Your task to perform on an android device: Search for seafood restaurants on Google Maps Image 0: 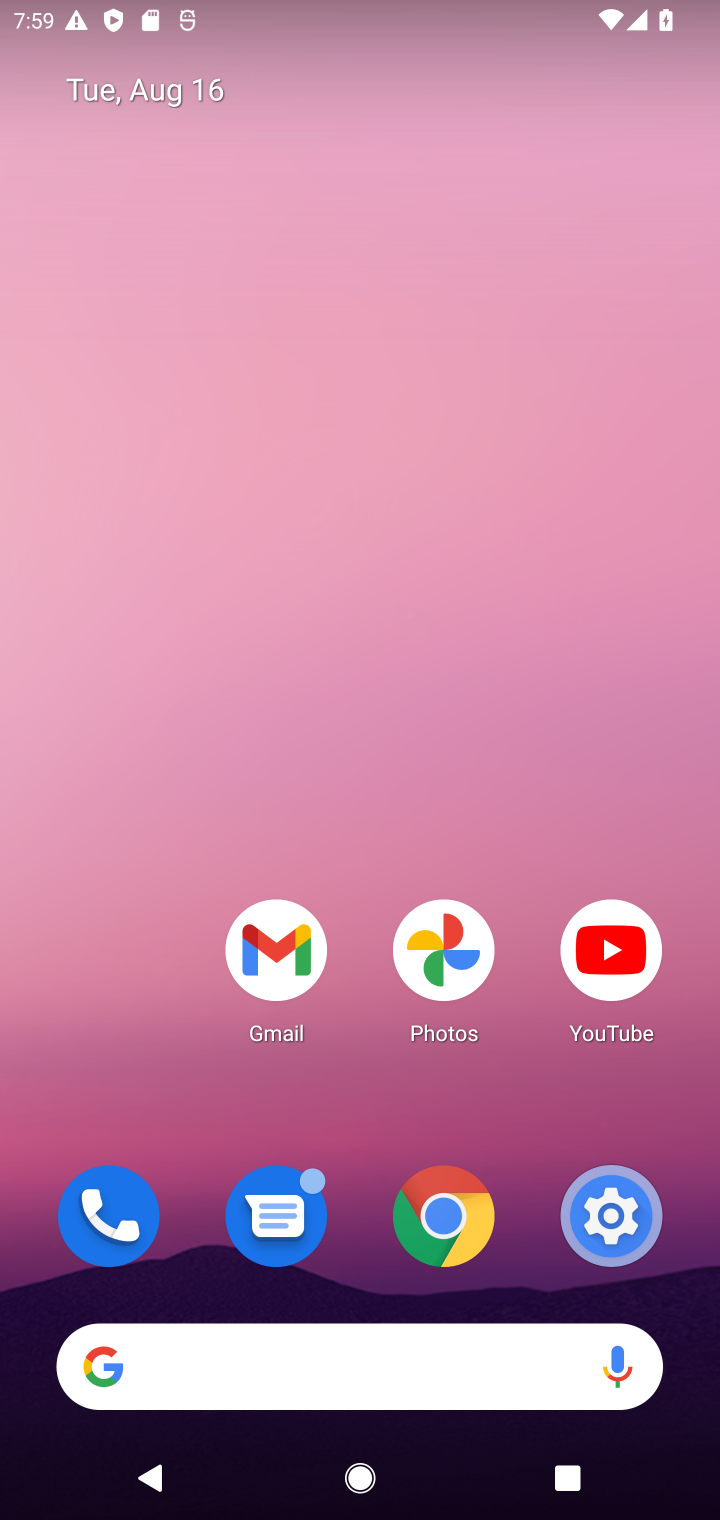
Step 0: drag from (344, 1320) to (305, 287)
Your task to perform on an android device: Search for seafood restaurants on Google Maps Image 1: 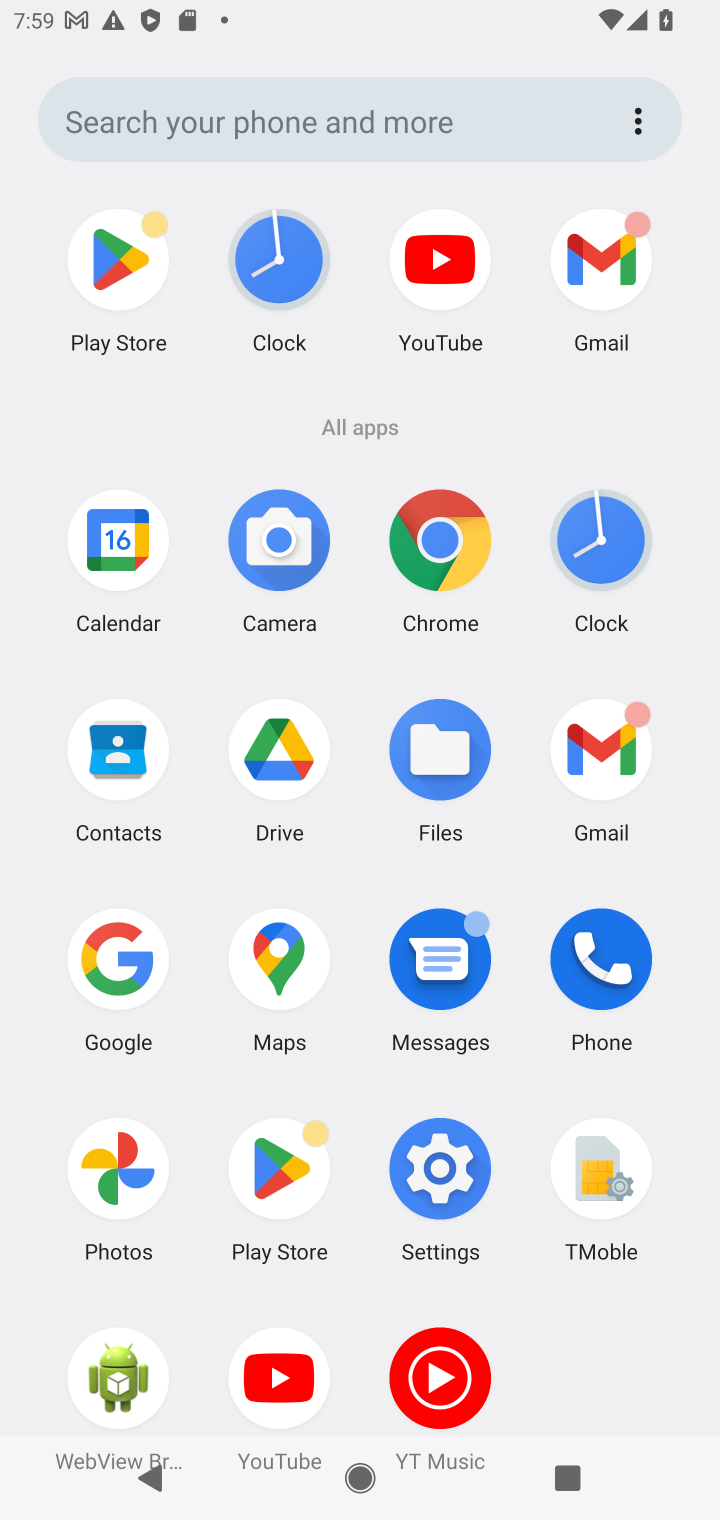
Step 1: click (255, 977)
Your task to perform on an android device: Search for seafood restaurants on Google Maps Image 2: 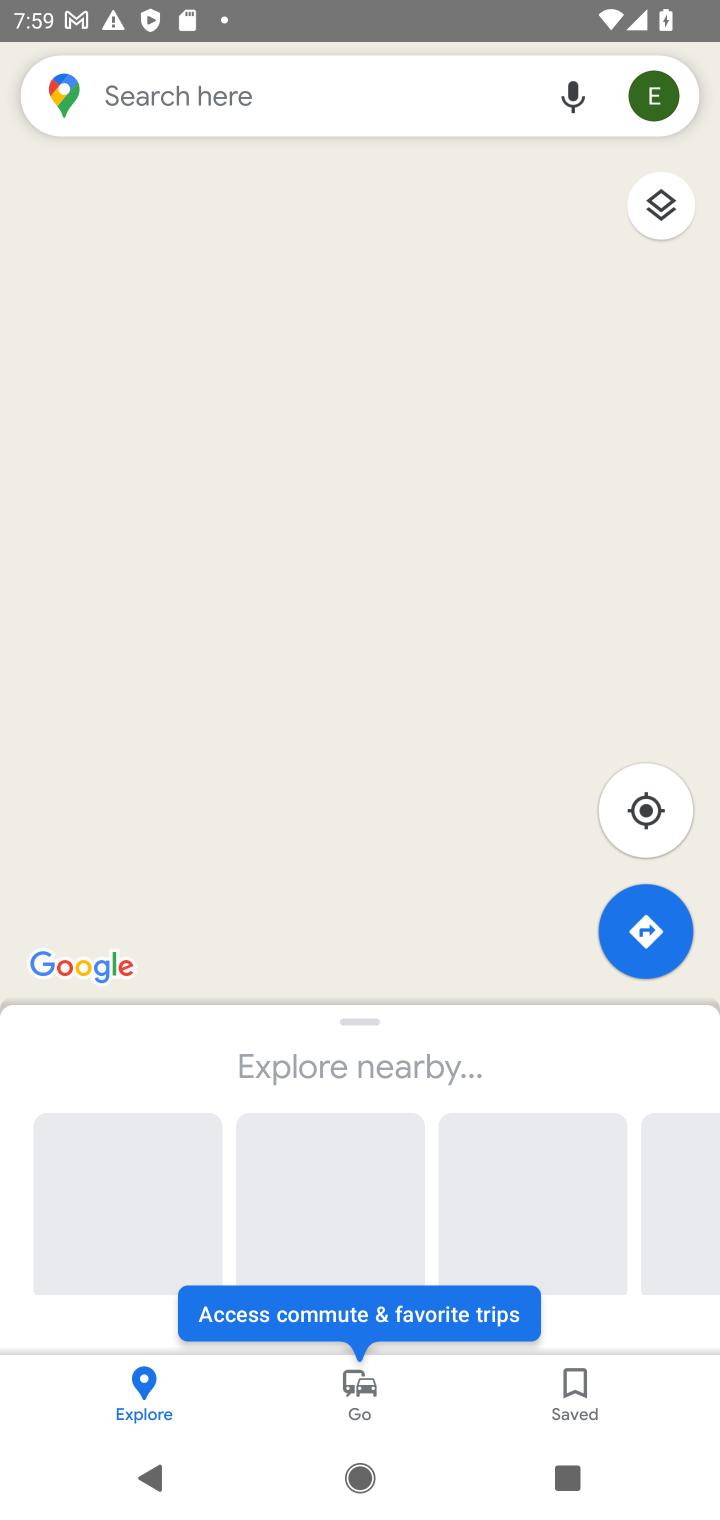
Step 2: click (301, 102)
Your task to perform on an android device: Search for seafood restaurants on Google Maps Image 3: 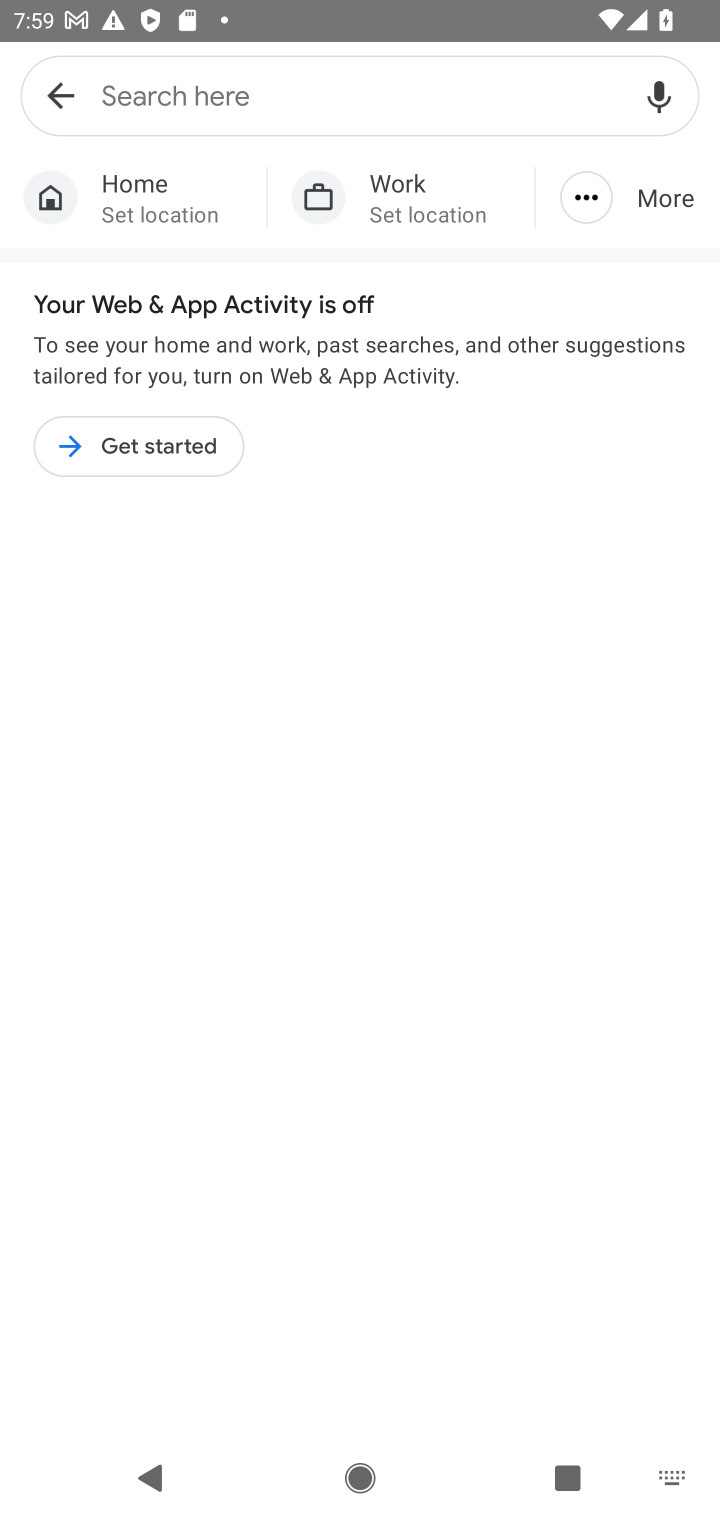
Step 3: click (170, 456)
Your task to perform on an android device: Search for seafood restaurants on Google Maps Image 4: 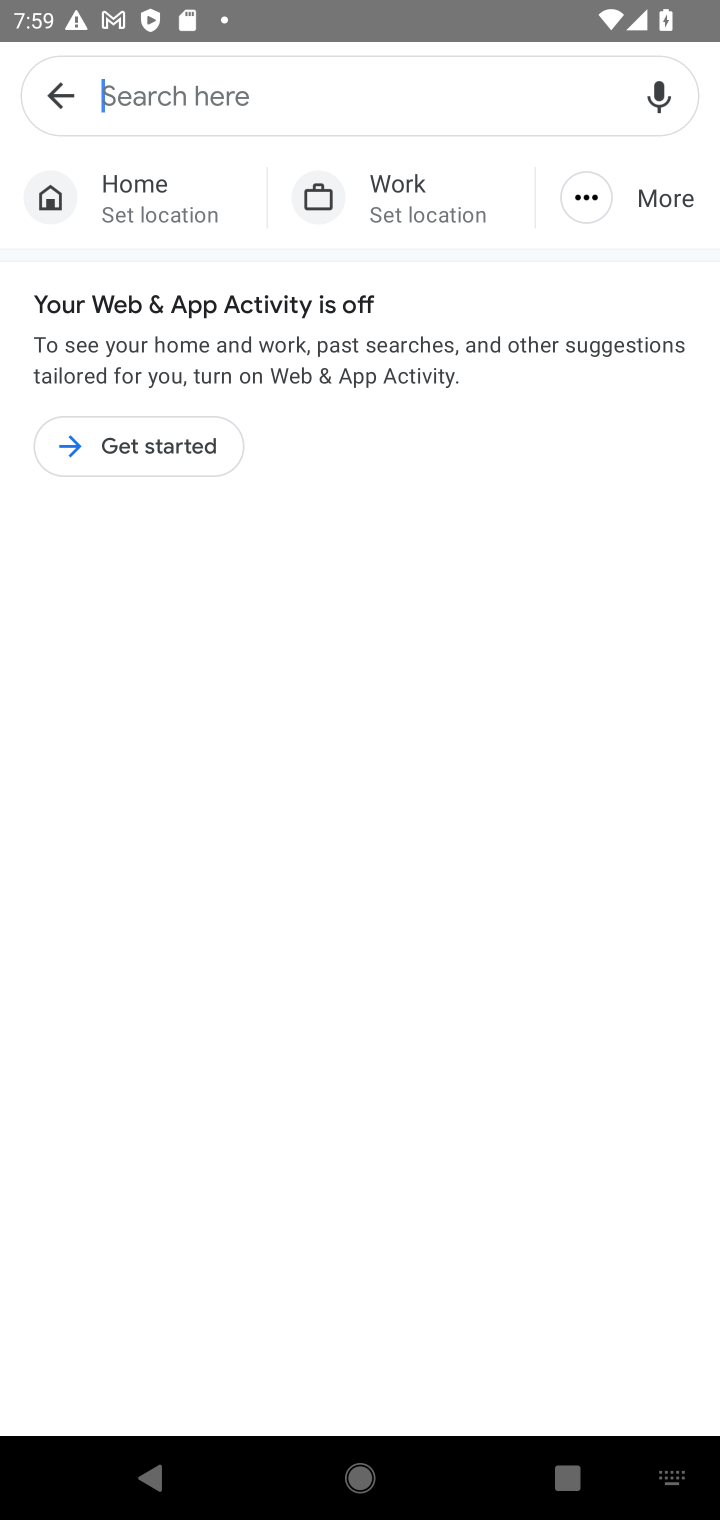
Step 4: click (173, 447)
Your task to perform on an android device: Search for seafood restaurants on Google Maps Image 5: 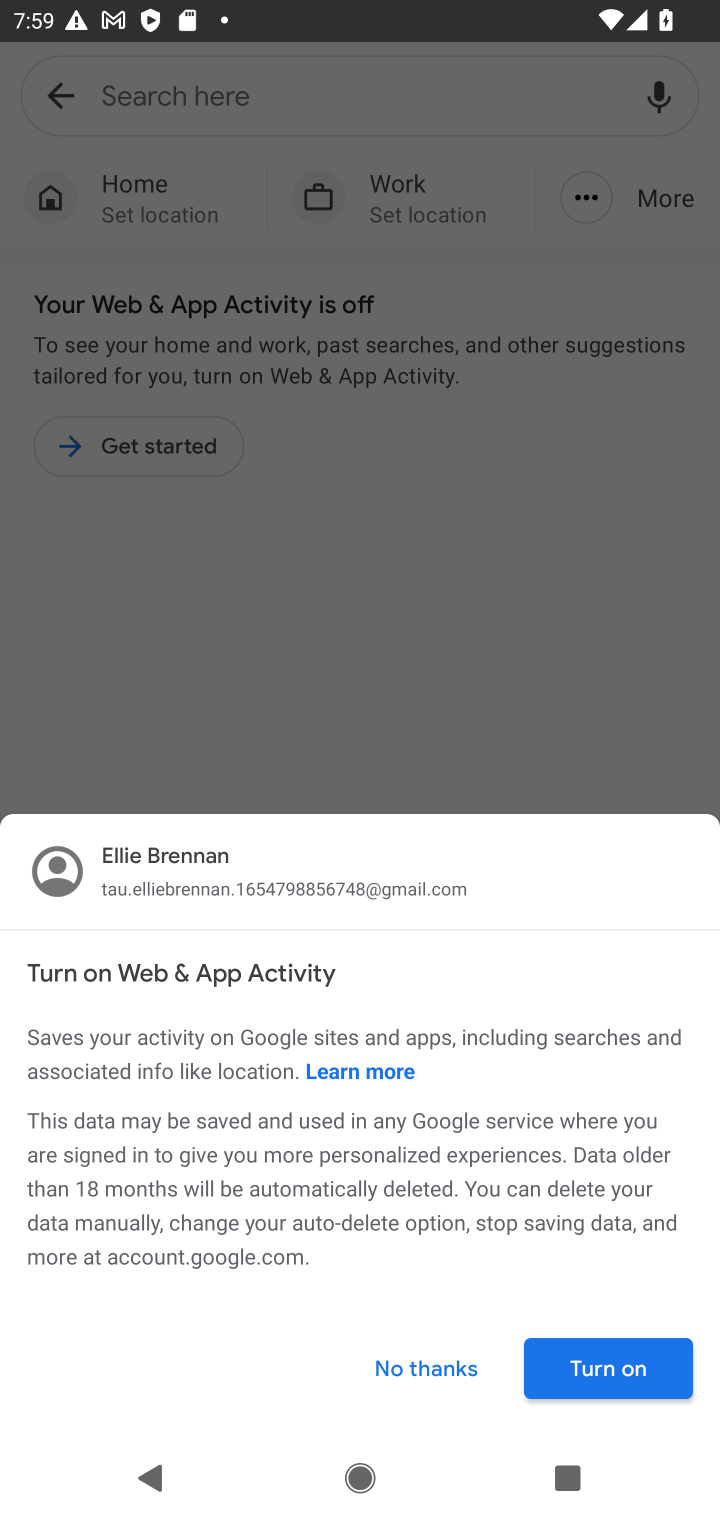
Step 5: click (609, 1367)
Your task to perform on an android device: Search for seafood restaurants on Google Maps Image 6: 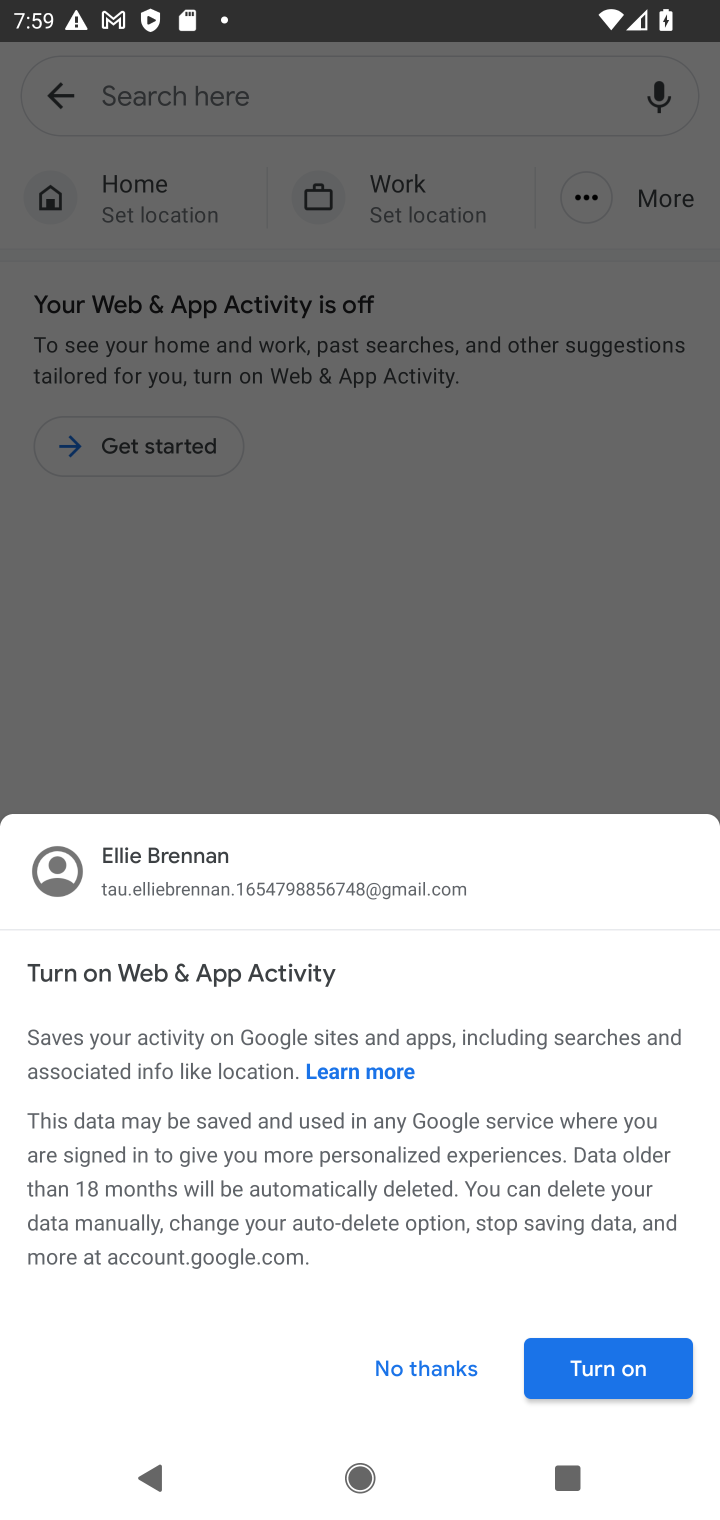
Step 6: click (615, 1372)
Your task to perform on an android device: Search for seafood restaurants on Google Maps Image 7: 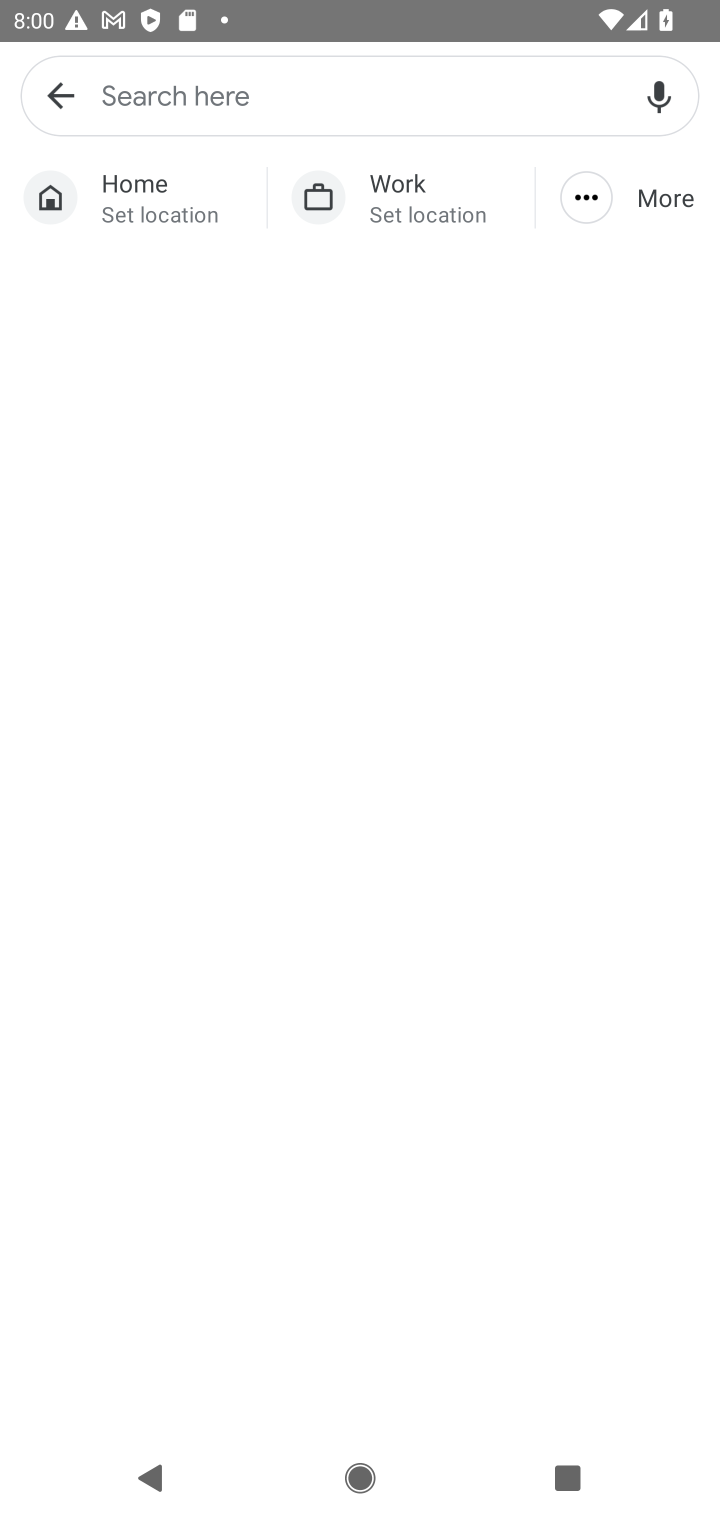
Step 7: task complete